Your task to perform on an android device: Clear all items from cart on walmart.com. Add "razer huntsman" to the cart on walmart.com, then select checkout. Image 0: 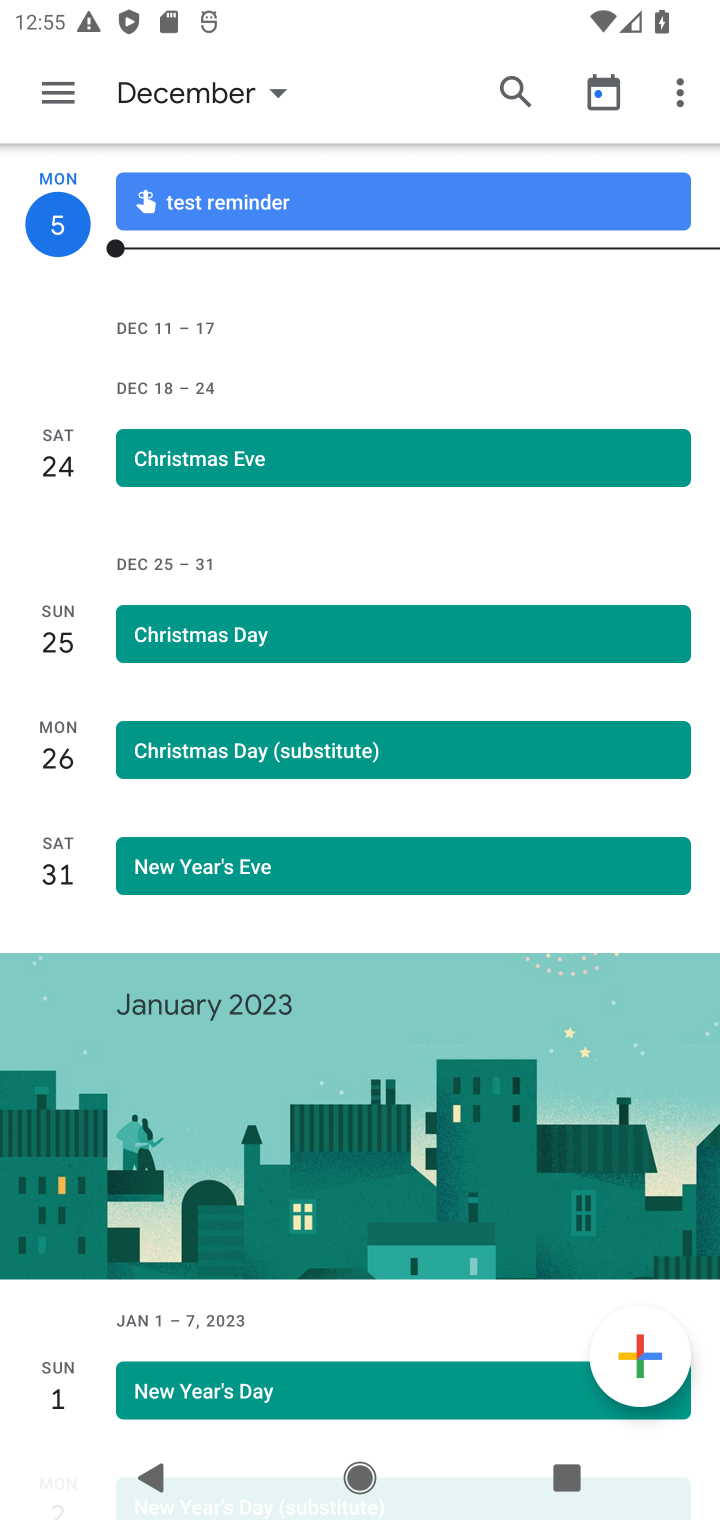
Step 0: press home button
Your task to perform on an android device: Clear all items from cart on walmart.com. Add "razer huntsman" to the cart on walmart.com, then select checkout. Image 1: 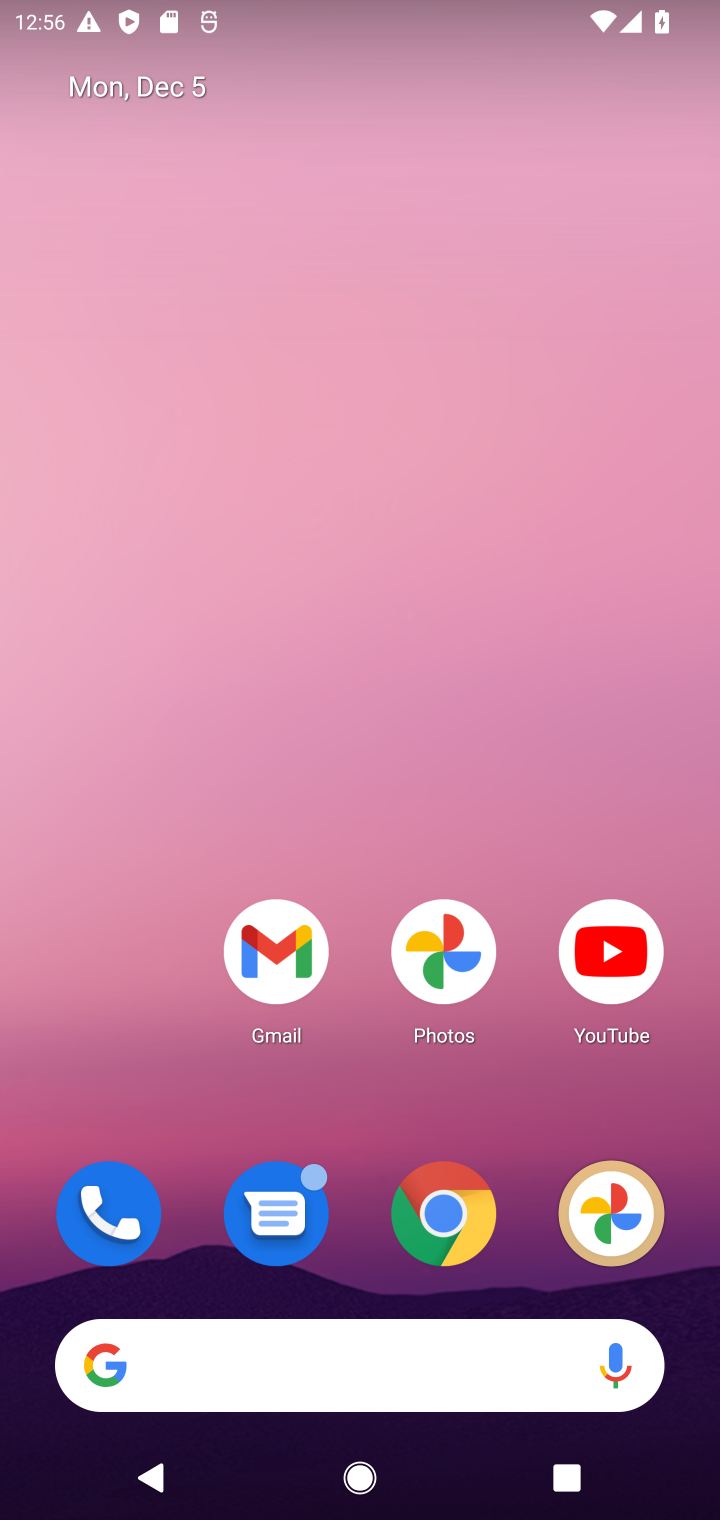
Step 1: click (442, 1218)
Your task to perform on an android device: Clear all items from cart on walmart.com. Add "razer huntsman" to the cart on walmart.com, then select checkout. Image 2: 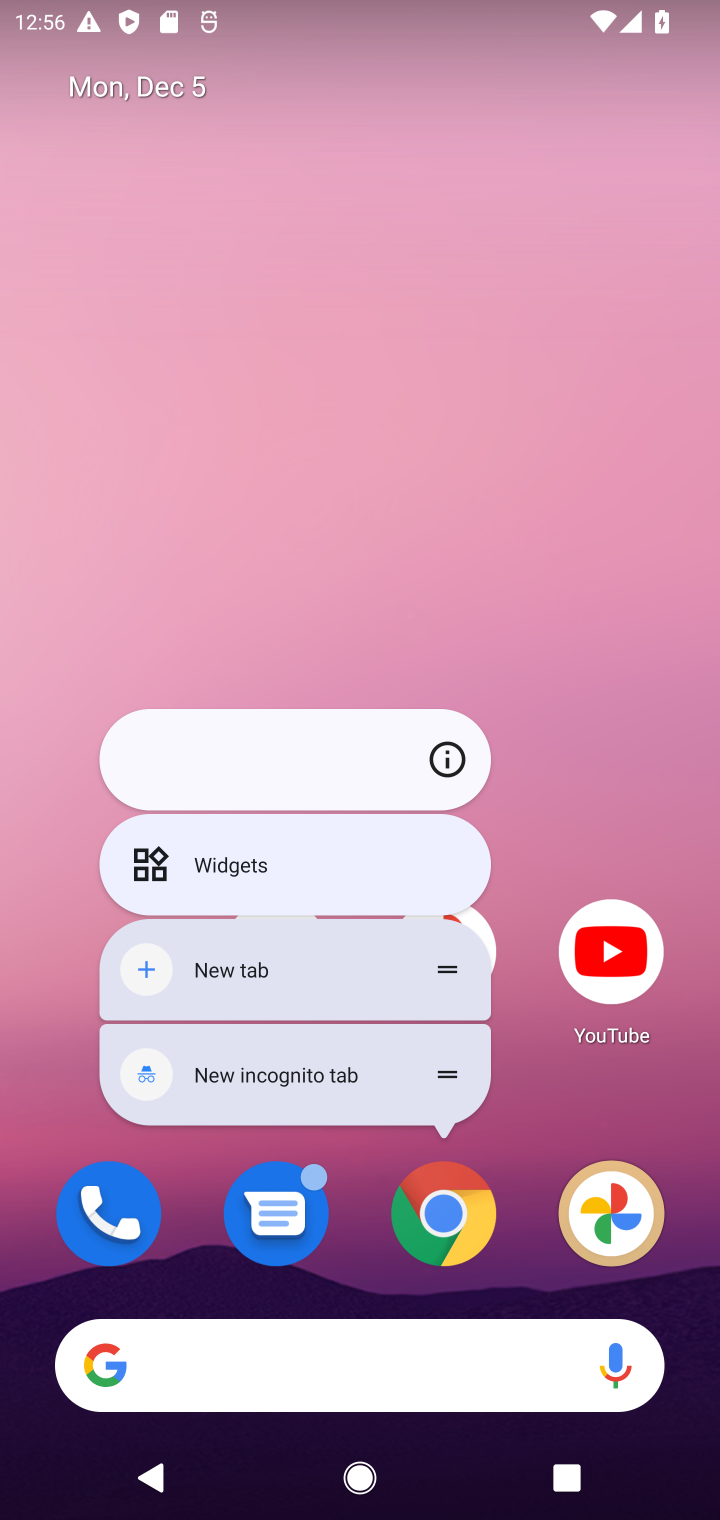
Step 2: click (442, 1218)
Your task to perform on an android device: Clear all items from cart on walmart.com. Add "razer huntsman" to the cart on walmart.com, then select checkout. Image 3: 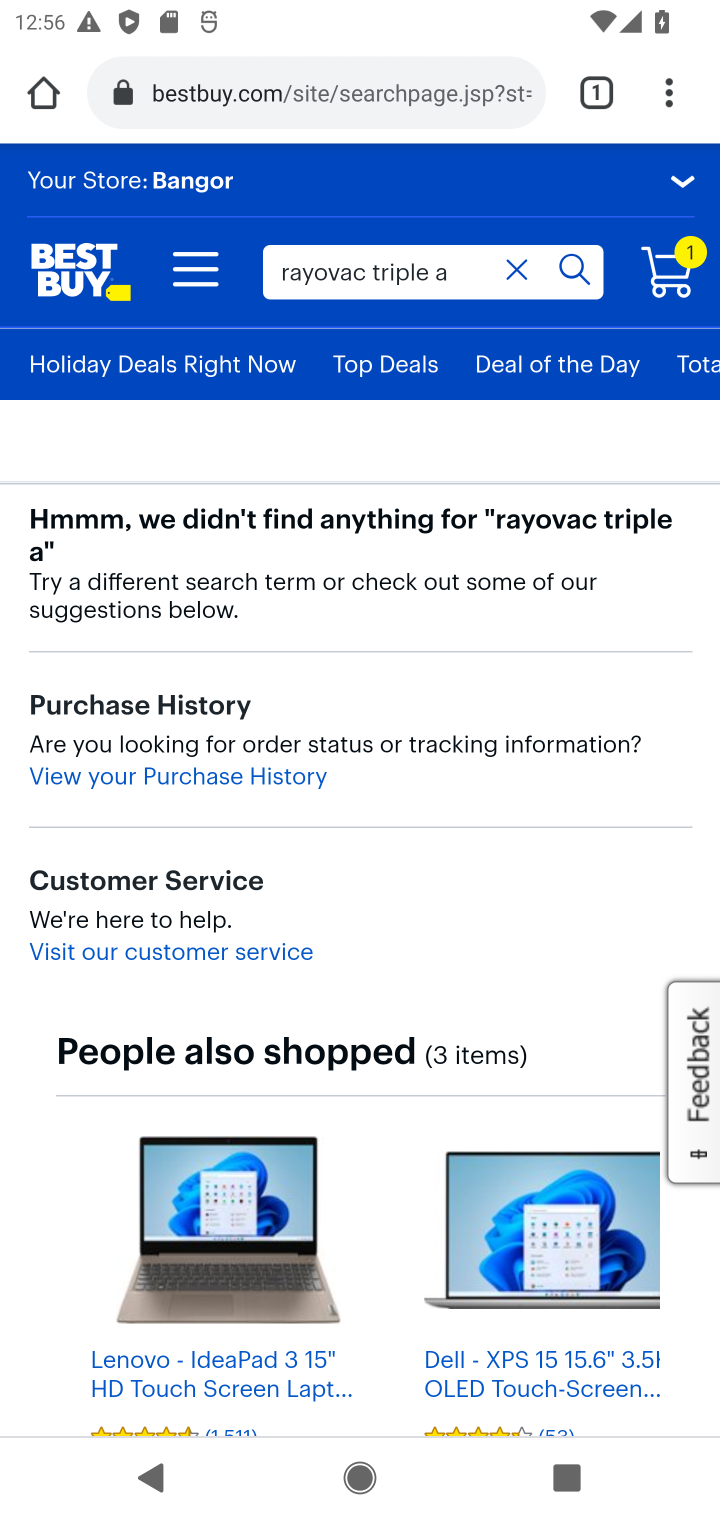
Step 3: click (270, 99)
Your task to perform on an android device: Clear all items from cart on walmart.com. Add "razer huntsman" to the cart on walmart.com, then select checkout. Image 4: 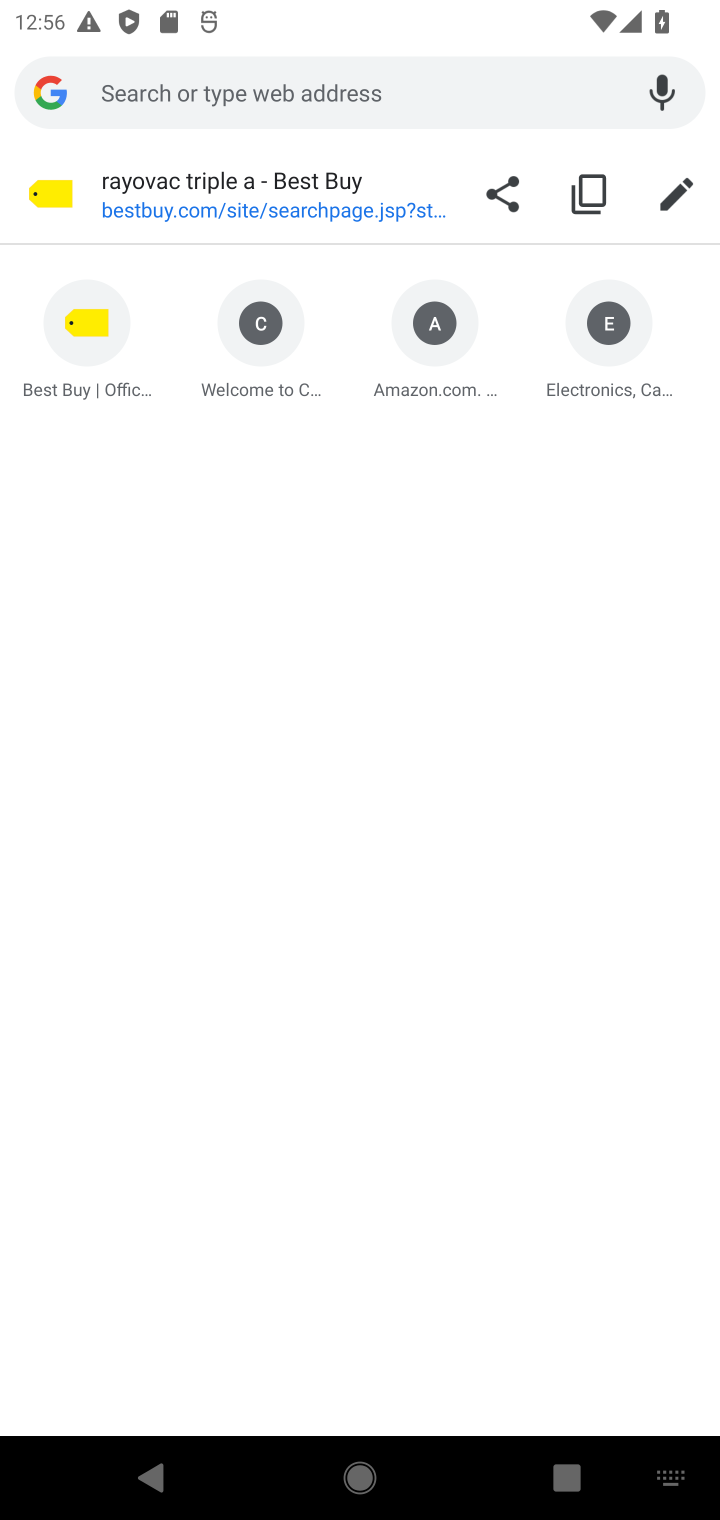
Step 4: type "walmart.com"
Your task to perform on an android device: Clear all items from cart on walmart.com. Add "razer huntsman" to the cart on walmart.com, then select checkout. Image 5: 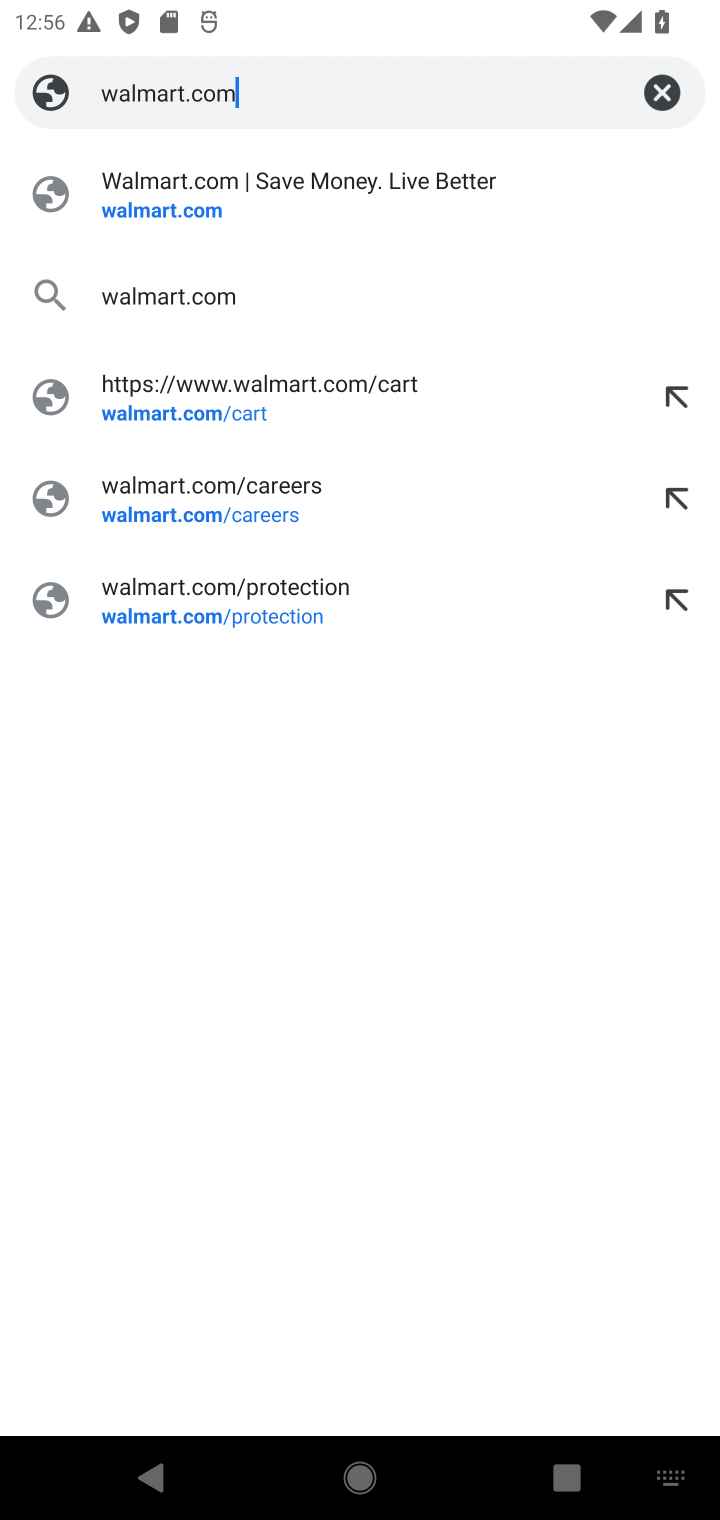
Step 5: click (143, 222)
Your task to perform on an android device: Clear all items from cart on walmart.com. Add "razer huntsman" to the cart on walmart.com, then select checkout. Image 6: 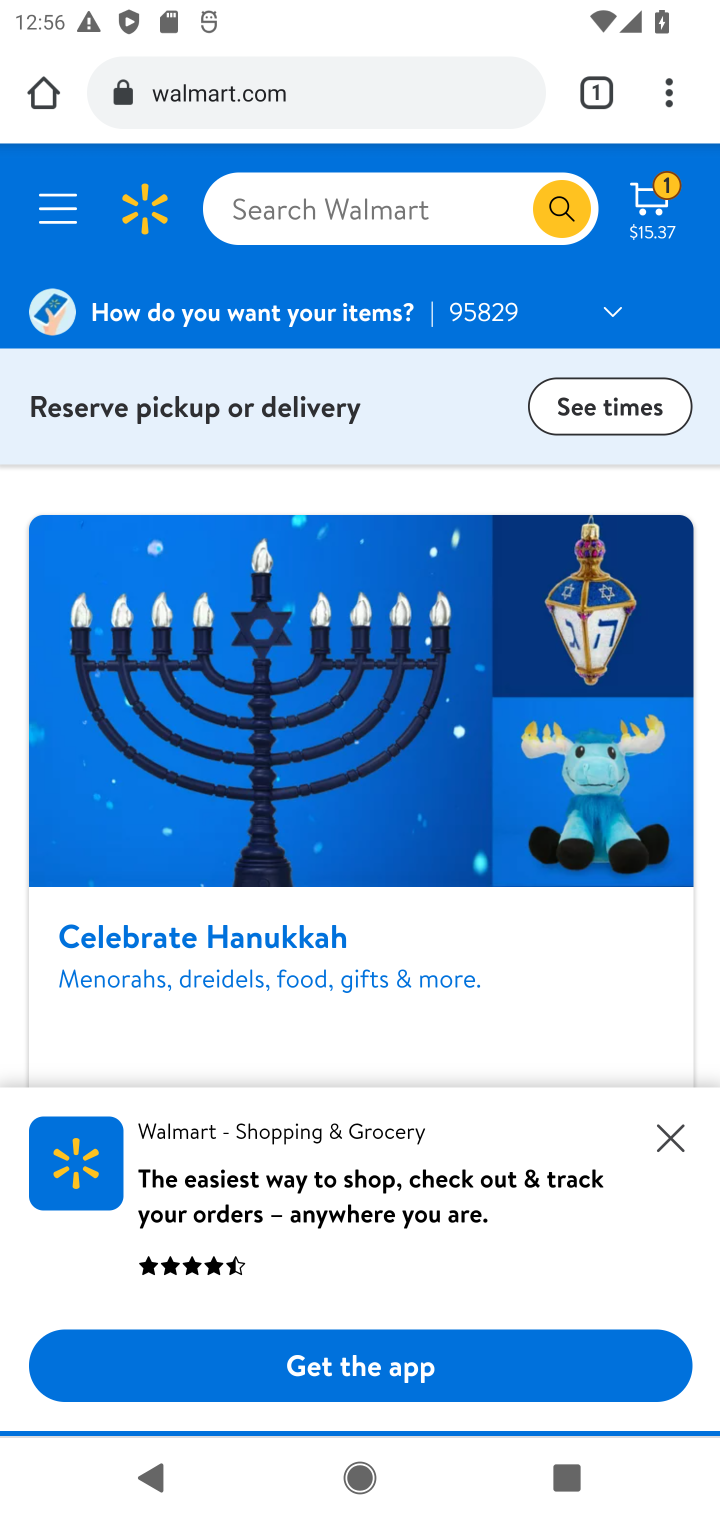
Step 6: click (659, 215)
Your task to perform on an android device: Clear all items from cart on walmart.com. Add "razer huntsman" to the cart on walmart.com, then select checkout. Image 7: 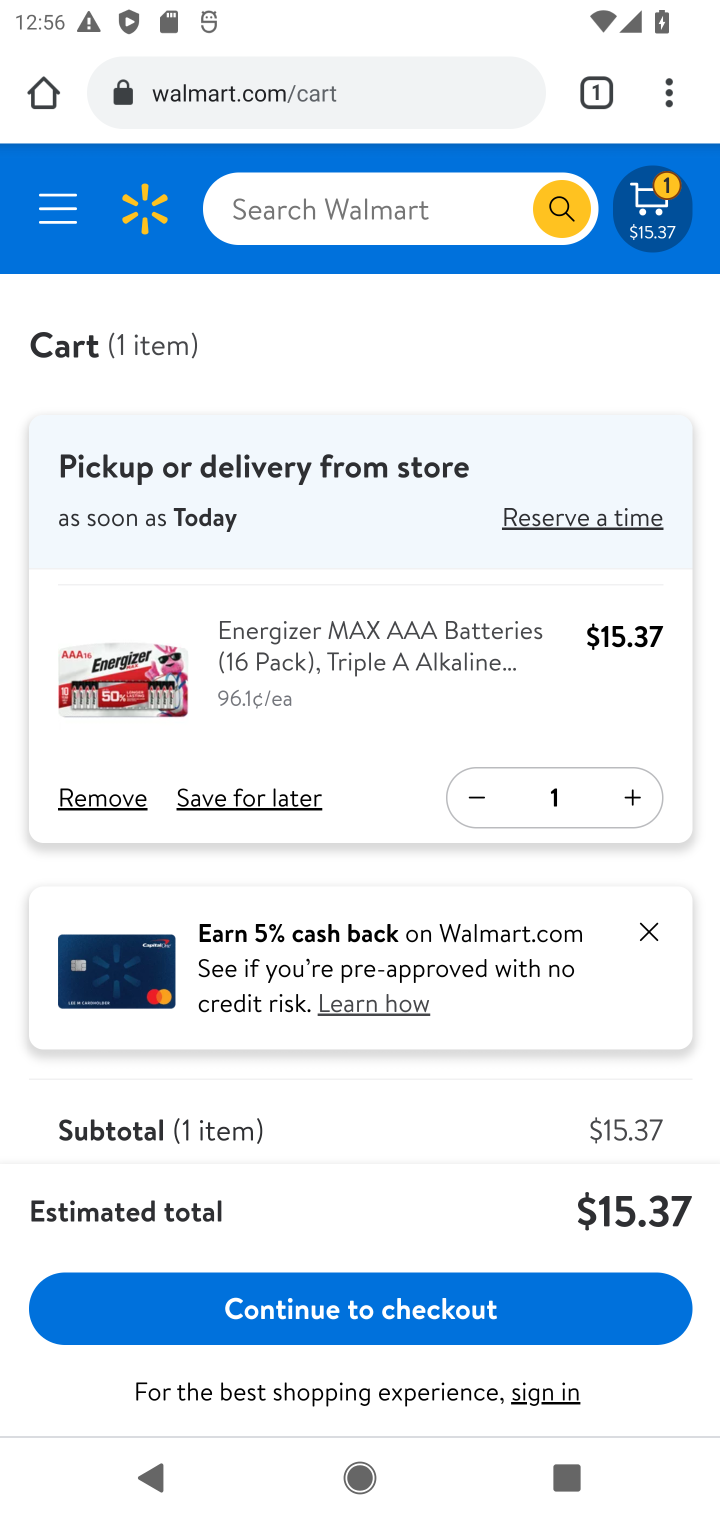
Step 7: click (89, 806)
Your task to perform on an android device: Clear all items from cart on walmart.com. Add "razer huntsman" to the cart on walmart.com, then select checkout. Image 8: 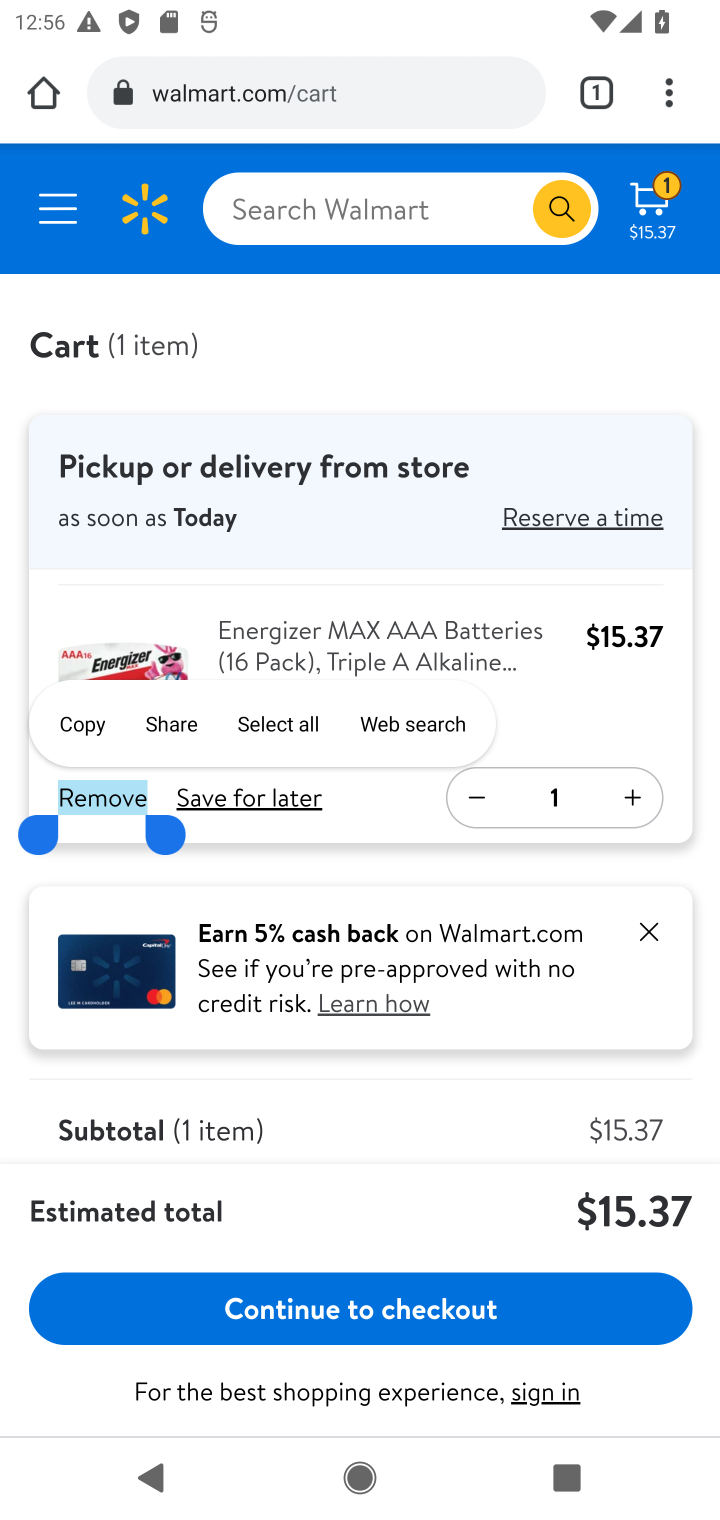
Step 8: click (89, 806)
Your task to perform on an android device: Clear all items from cart on walmart.com. Add "razer huntsman" to the cart on walmart.com, then select checkout. Image 9: 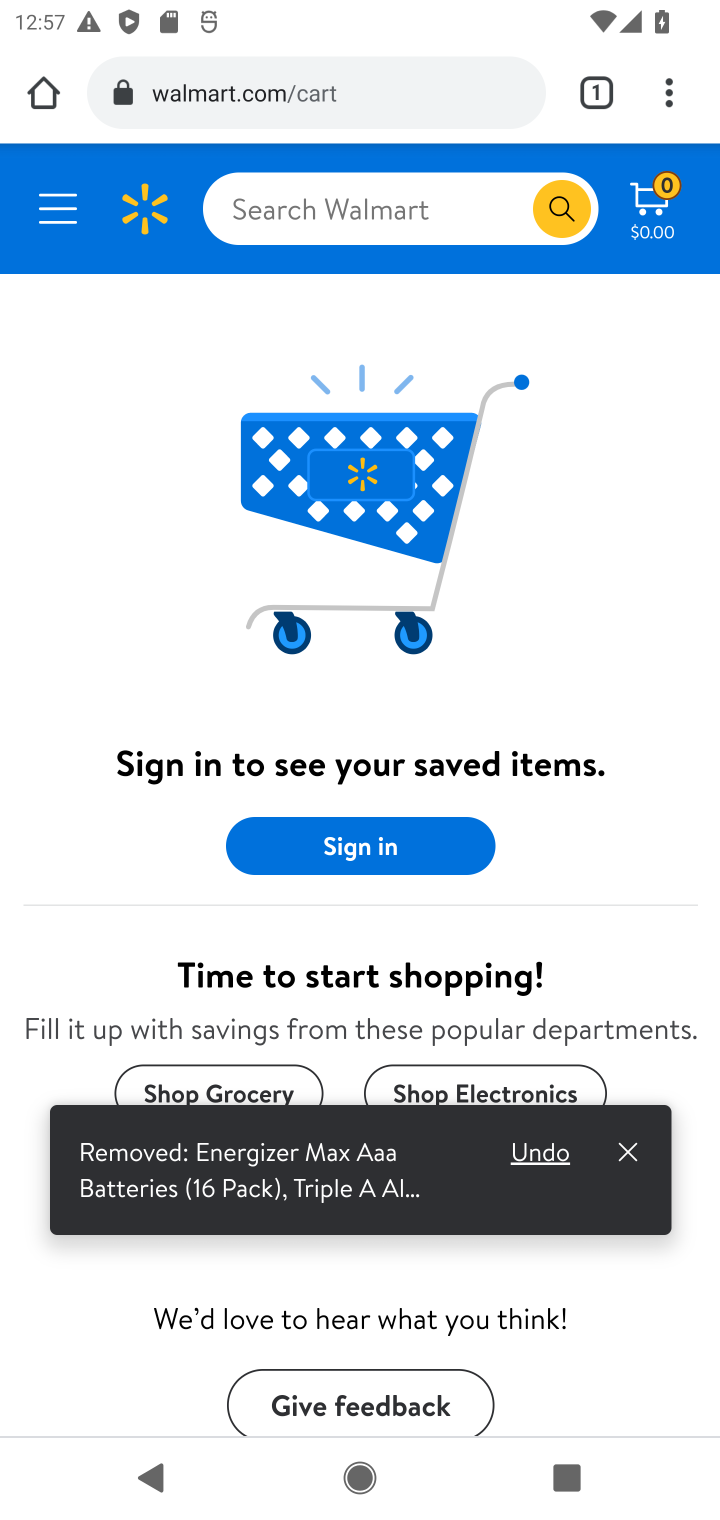
Step 9: drag from (157, 868) to (170, 657)
Your task to perform on an android device: Clear all items from cart on walmart.com. Add "razer huntsman" to the cart on walmart.com, then select checkout. Image 10: 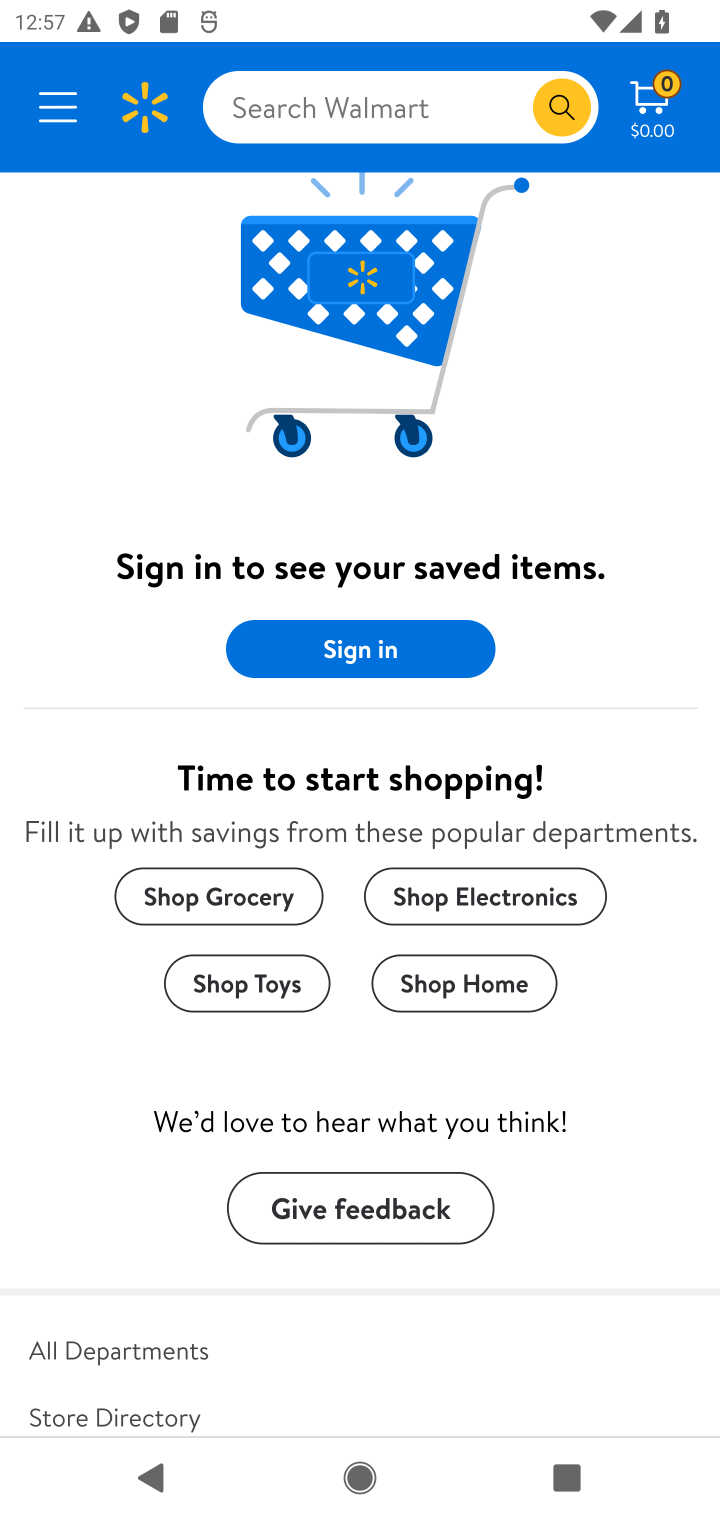
Step 10: drag from (500, 715) to (490, 808)
Your task to perform on an android device: Clear all items from cart on walmart.com. Add "razer huntsman" to the cart on walmart.com, then select checkout. Image 11: 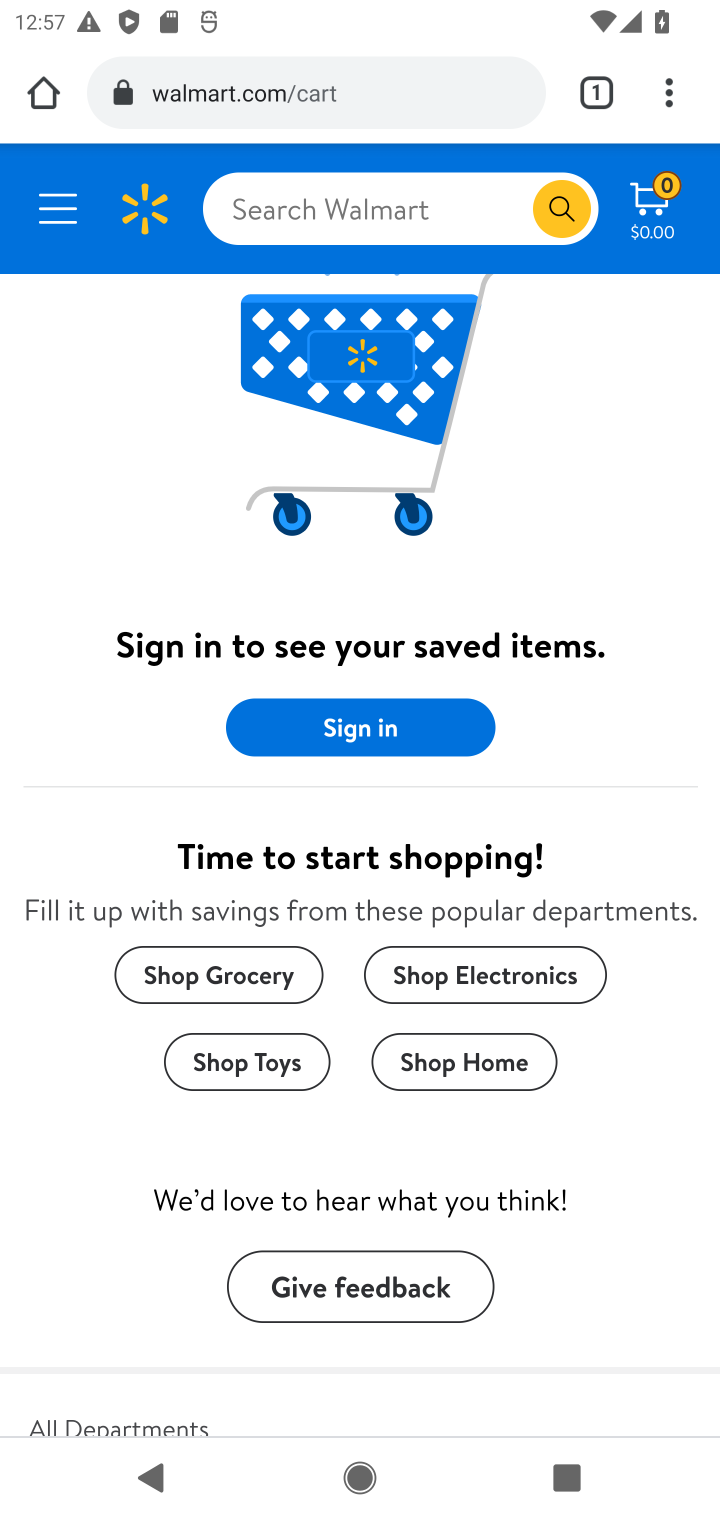
Step 11: click (291, 194)
Your task to perform on an android device: Clear all items from cart on walmart.com. Add "razer huntsman" to the cart on walmart.com, then select checkout. Image 12: 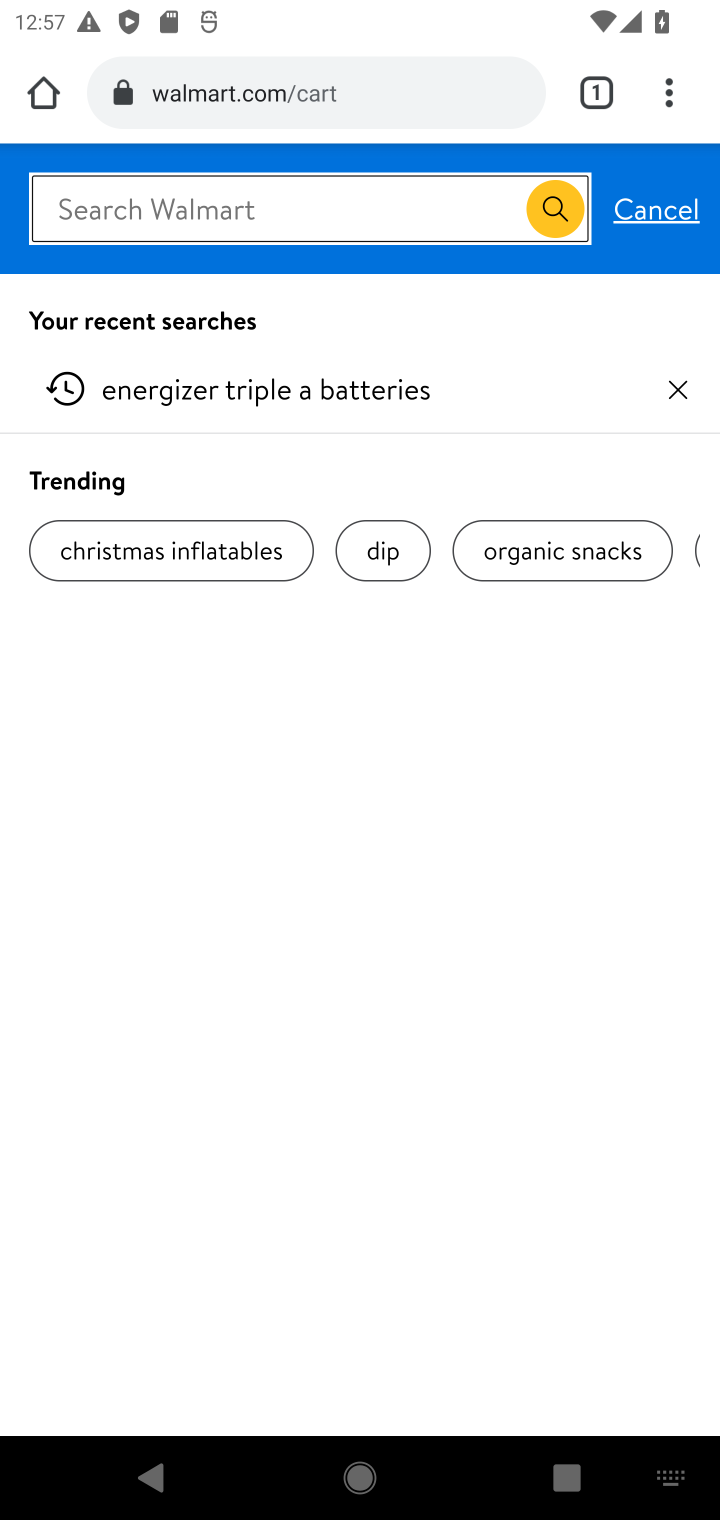
Step 12: type "razer huntsman"
Your task to perform on an android device: Clear all items from cart on walmart.com. Add "razer huntsman" to the cart on walmart.com, then select checkout. Image 13: 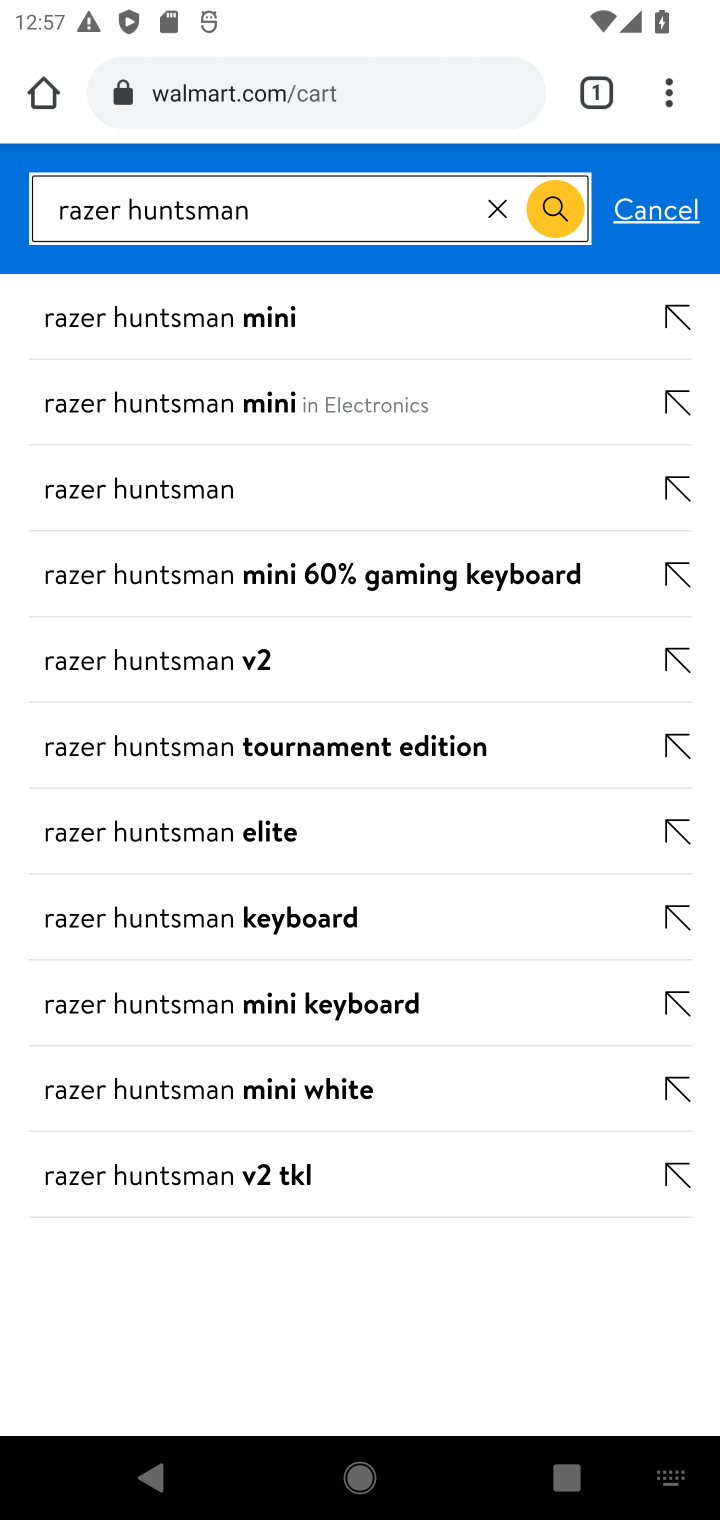
Step 13: click (85, 505)
Your task to perform on an android device: Clear all items from cart on walmart.com. Add "razer huntsman" to the cart on walmart.com, then select checkout. Image 14: 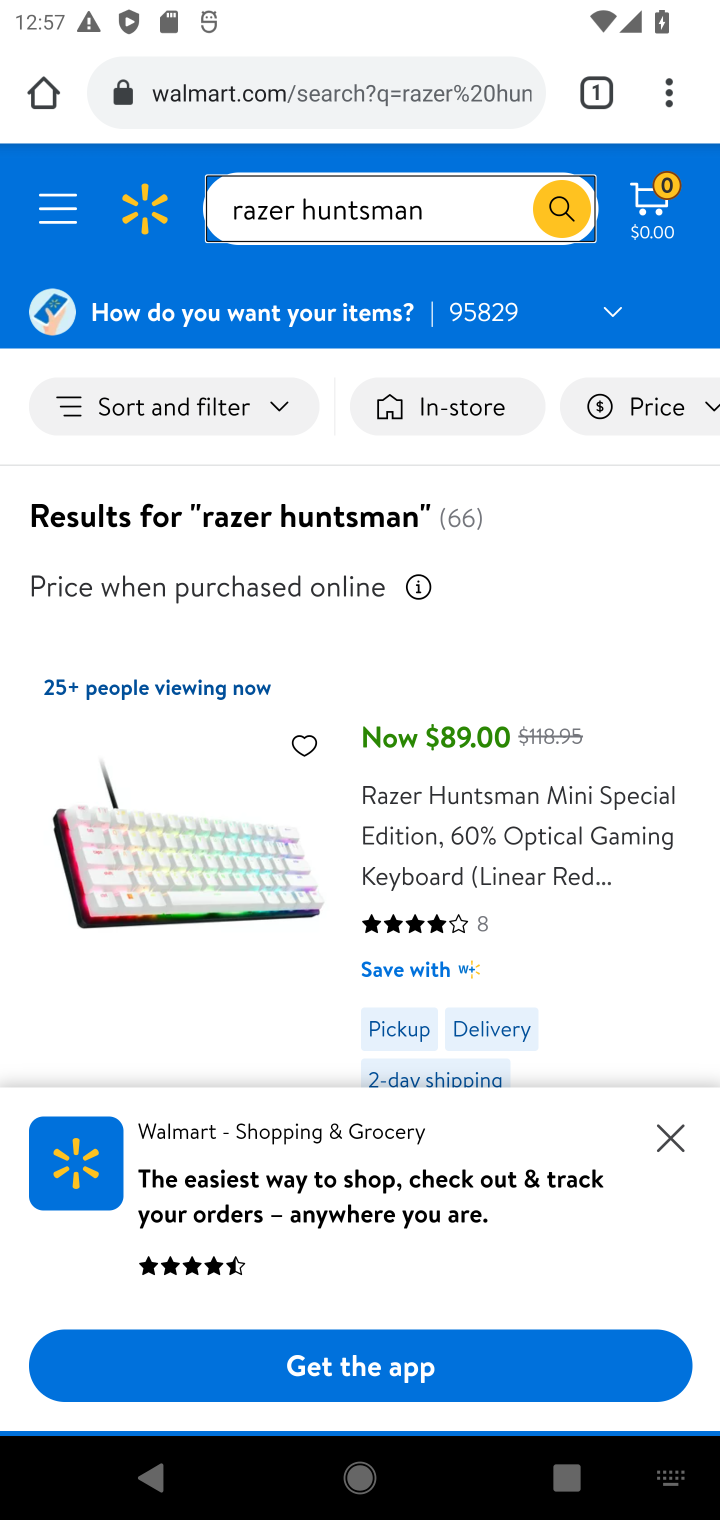
Step 14: drag from (313, 935) to (344, 693)
Your task to perform on an android device: Clear all items from cart on walmart.com. Add "razer huntsman" to the cart on walmart.com, then select checkout. Image 15: 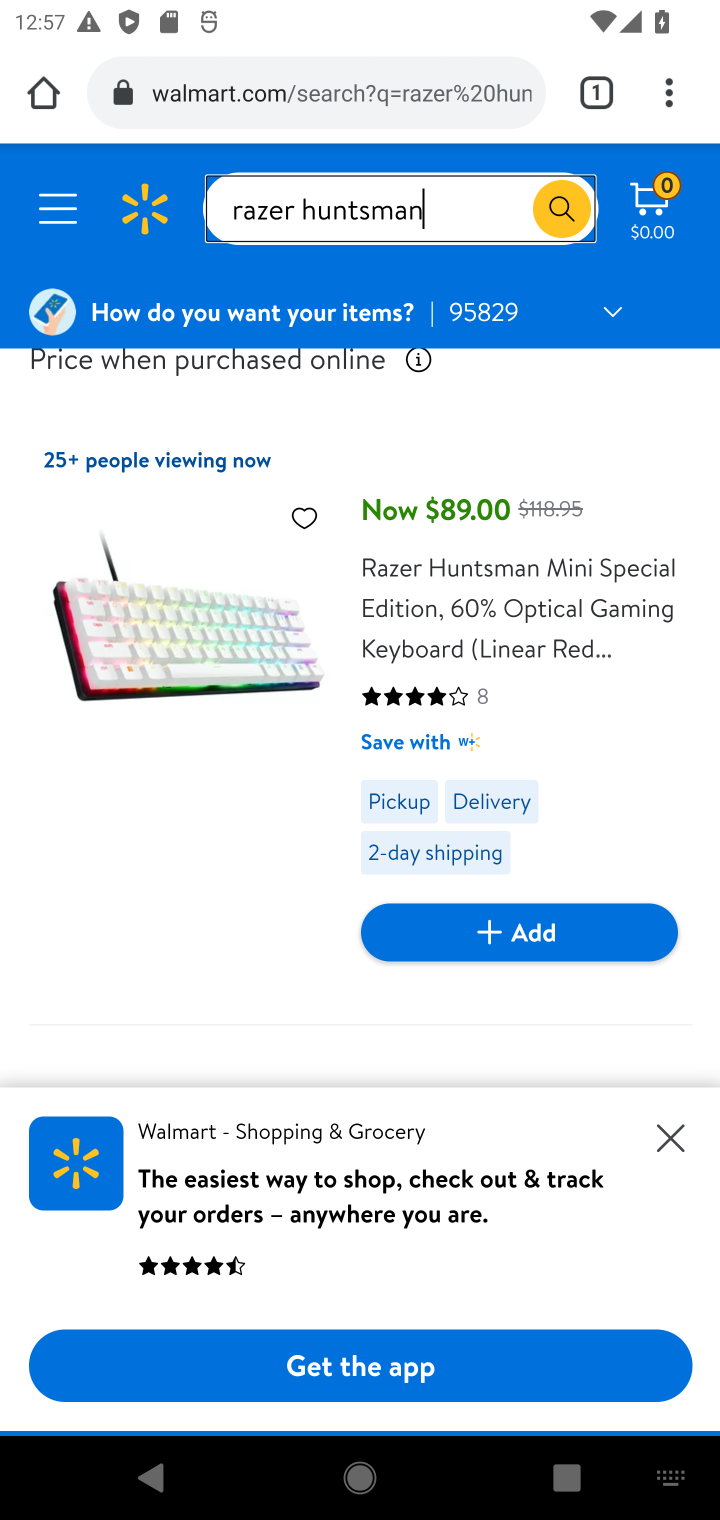
Step 15: click (520, 927)
Your task to perform on an android device: Clear all items from cart on walmart.com. Add "razer huntsman" to the cart on walmart.com, then select checkout. Image 16: 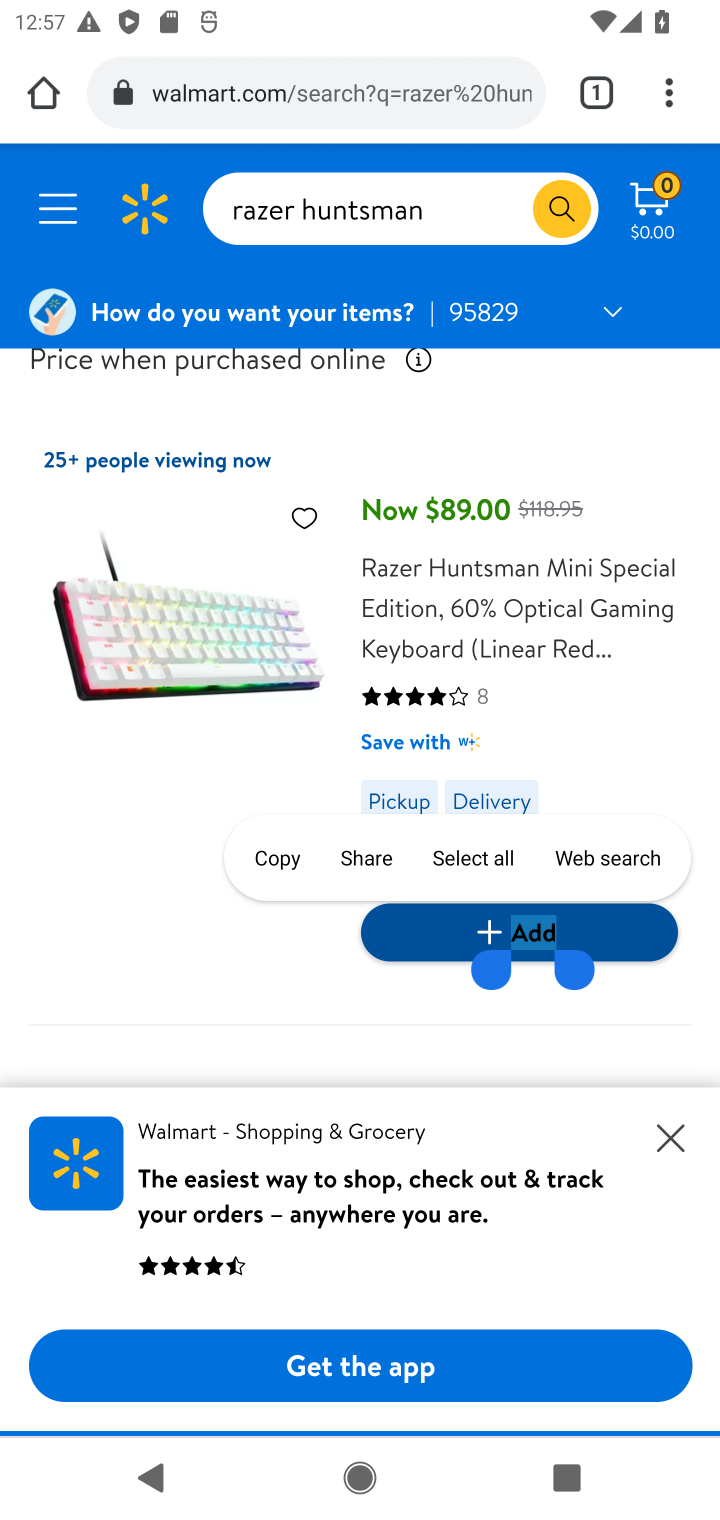
Step 16: click (516, 938)
Your task to perform on an android device: Clear all items from cart on walmart.com. Add "razer huntsman" to the cart on walmart.com, then select checkout. Image 17: 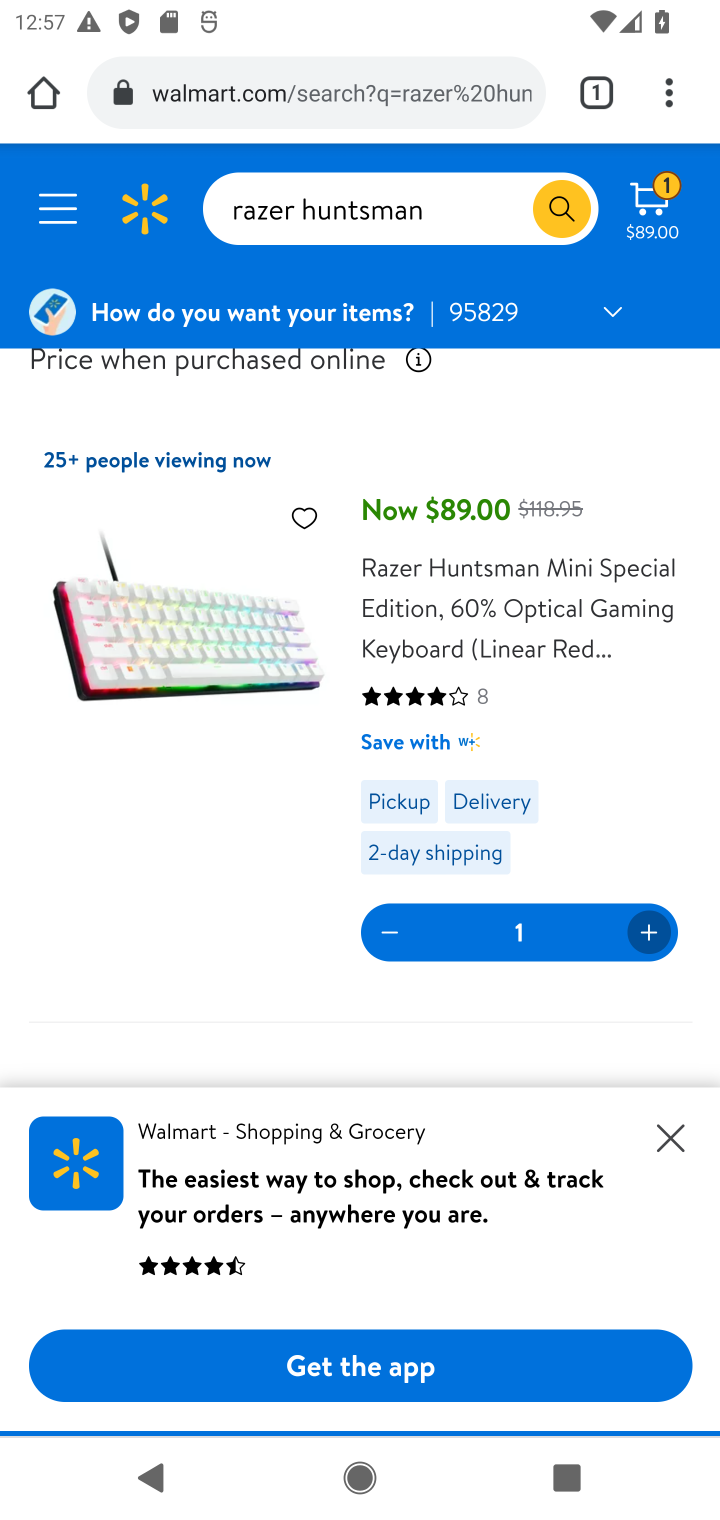
Step 17: click (665, 208)
Your task to perform on an android device: Clear all items from cart on walmart.com. Add "razer huntsman" to the cart on walmart.com, then select checkout. Image 18: 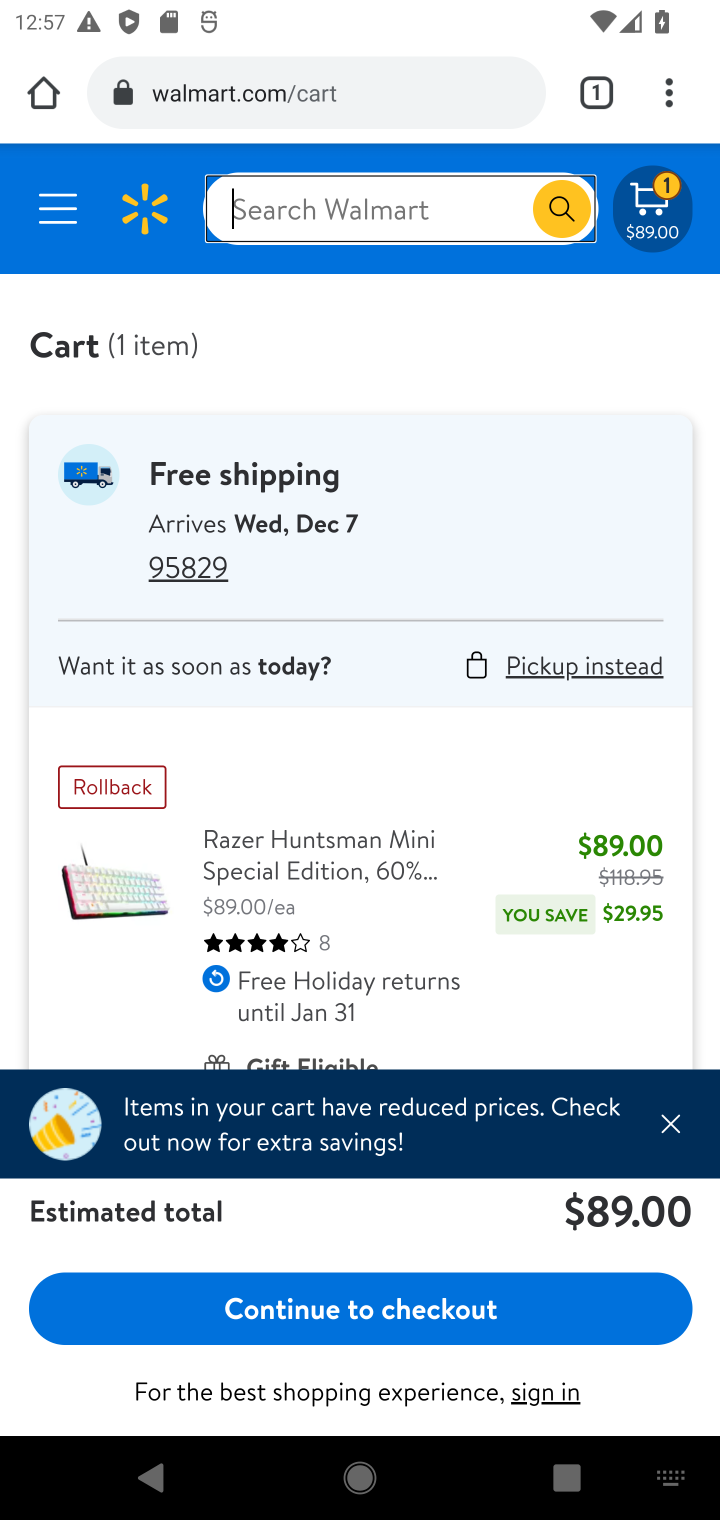
Step 18: click (328, 1322)
Your task to perform on an android device: Clear all items from cart on walmart.com. Add "razer huntsman" to the cart on walmart.com, then select checkout. Image 19: 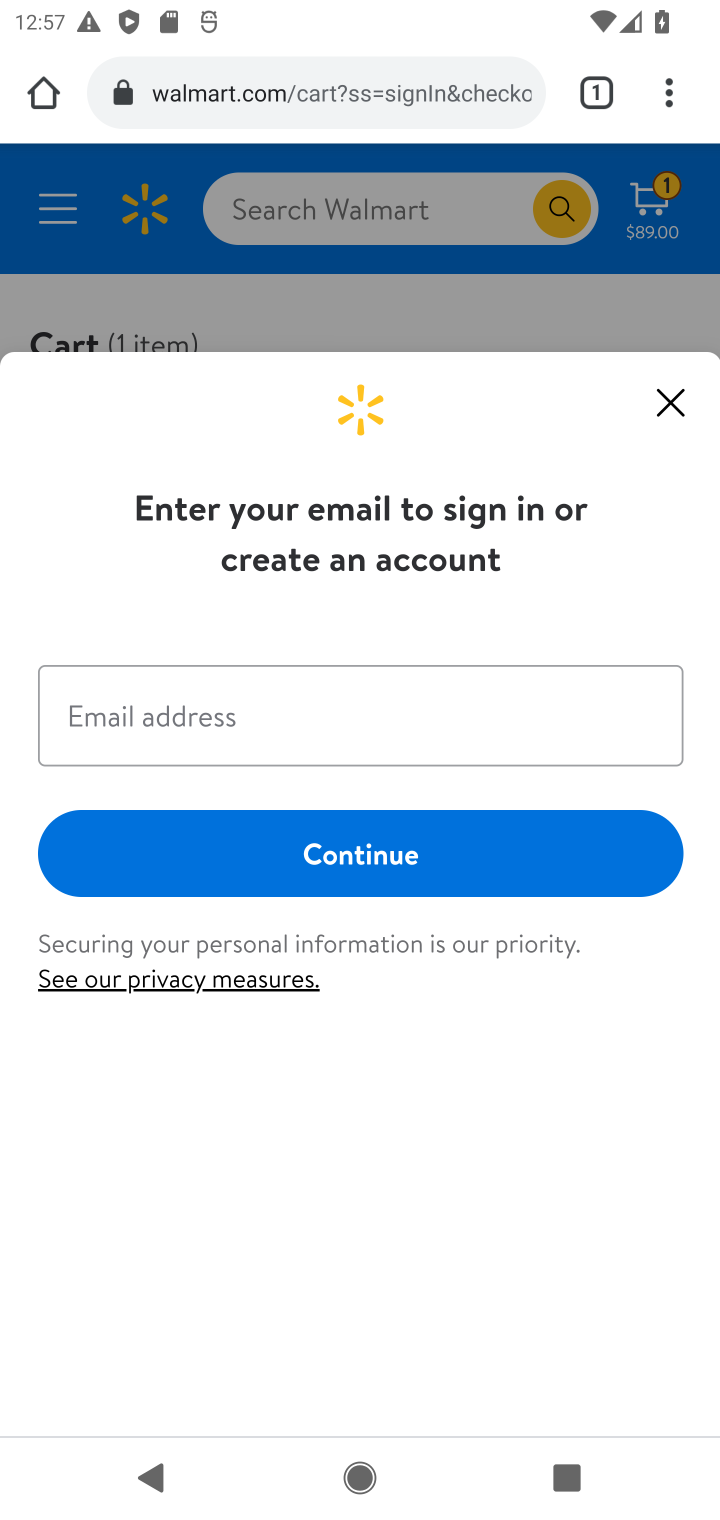
Step 19: task complete